Your task to perform on an android device: toggle show notifications on the lock screen Image 0: 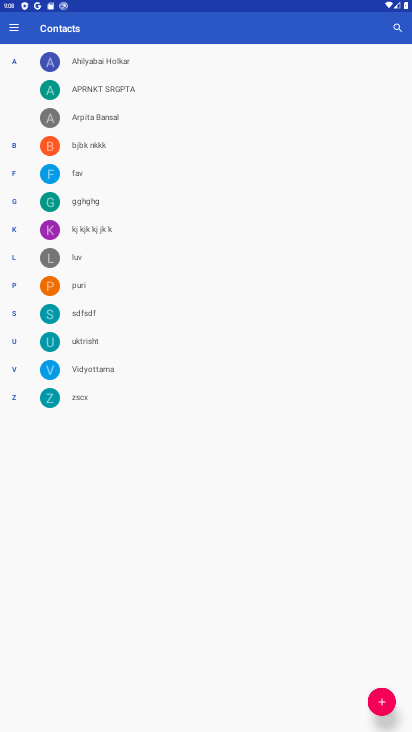
Step 0: press home button
Your task to perform on an android device: toggle show notifications on the lock screen Image 1: 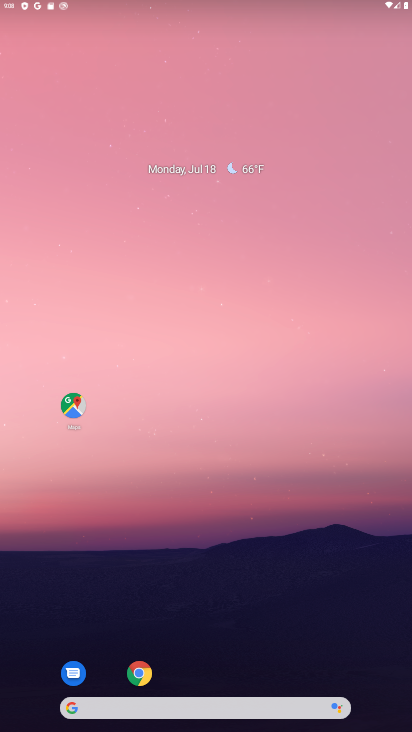
Step 1: drag from (246, 558) to (305, 94)
Your task to perform on an android device: toggle show notifications on the lock screen Image 2: 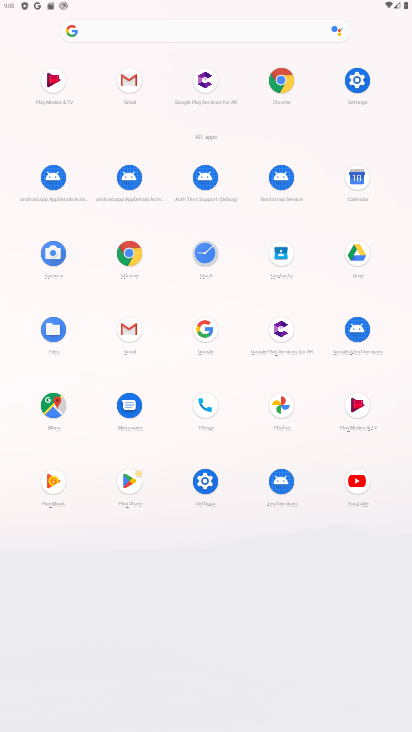
Step 2: click (355, 84)
Your task to perform on an android device: toggle show notifications on the lock screen Image 3: 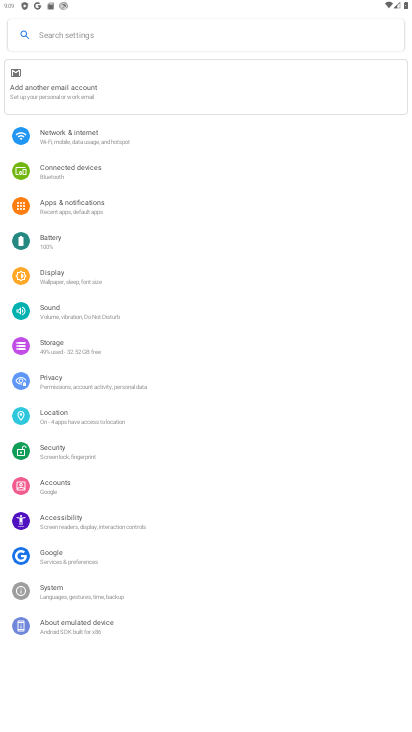
Step 3: click (52, 213)
Your task to perform on an android device: toggle show notifications on the lock screen Image 4: 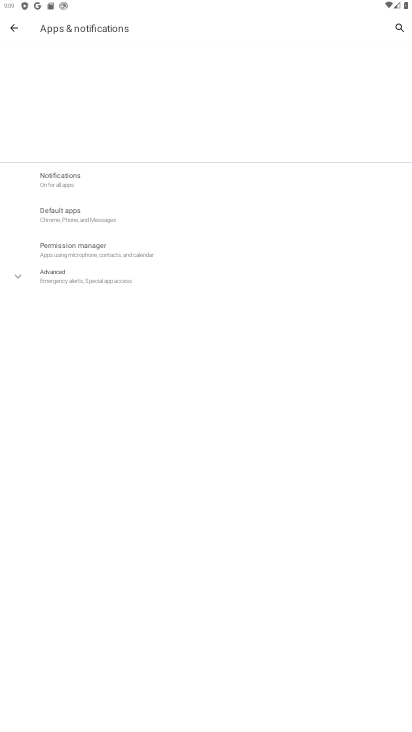
Step 4: click (47, 176)
Your task to perform on an android device: toggle show notifications on the lock screen Image 5: 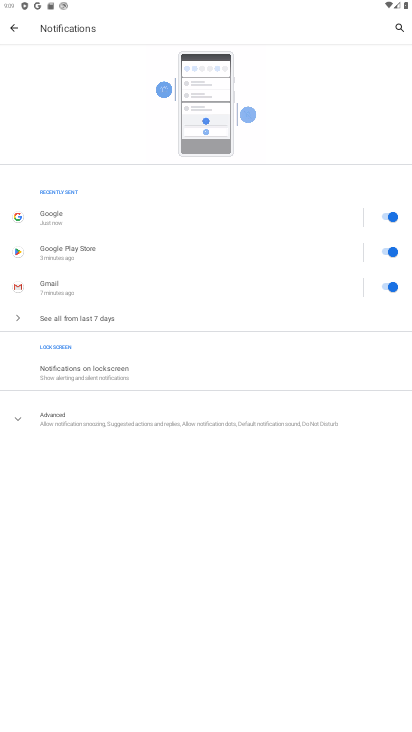
Step 5: click (90, 370)
Your task to perform on an android device: toggle show notifications on the lock screen Image 6: 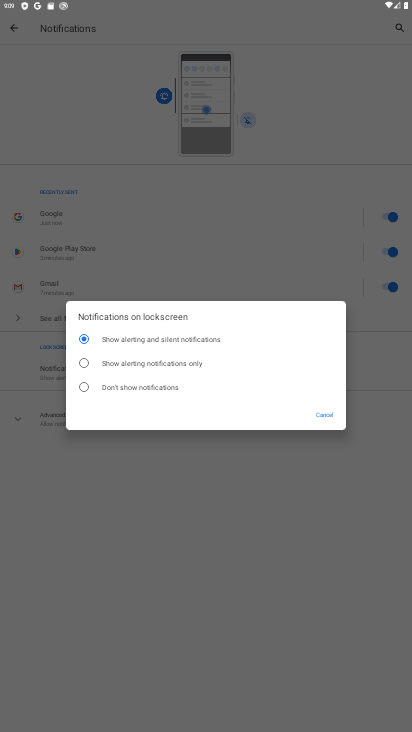
Step 6: click (81, 389)
Your task to perform on an android device: toggle show notifications on the lock screen Image 7: 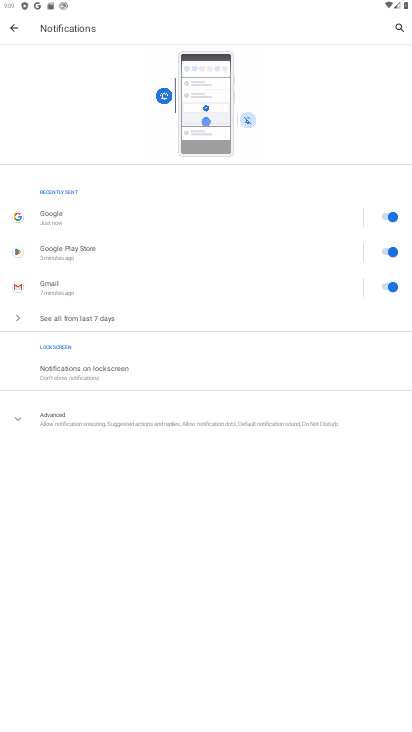
Step 7: task complete